Your task to perform on an android device: Open the Play Movies app and select the watchlist tab. Image 0: 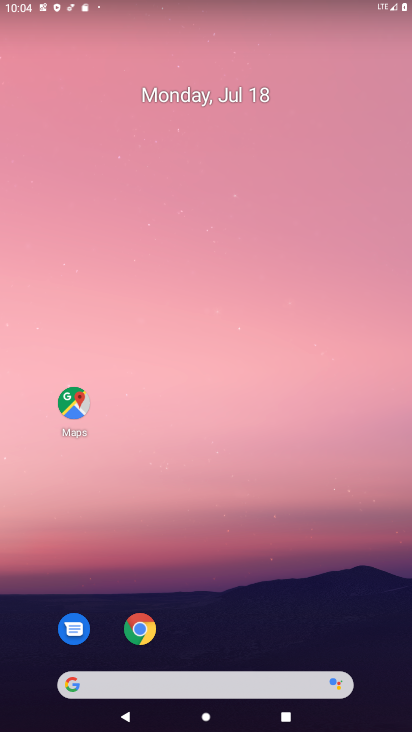
Step 0: drag from (191, 679) to (143, 208)
Your task to perform on an android device: Open the Play Movies app and select the watchlist tab. Image 1: 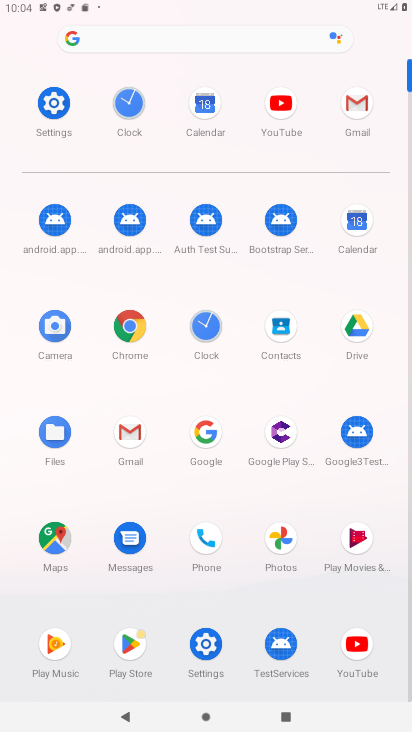
Step 1: click (366, 550)
Your task to perform on an android device: Open the Play Movies app and select the watchlist tab. Image 2: 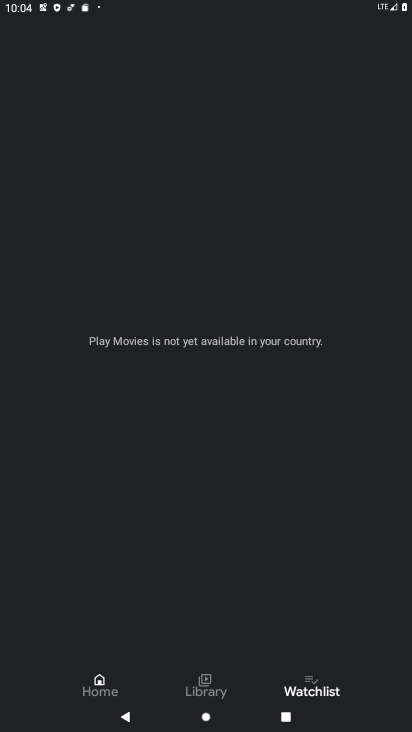
Step 2: task complete